Your task to perform on an android device: turn on sleep mode Image 0: 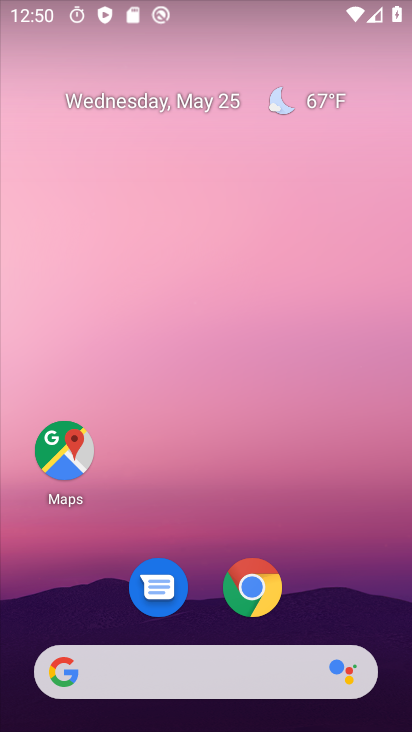
Step 0: drag from (208, 726) to (194, 164)
Your task to perform on an android device: turn on sleep mode Image 1: 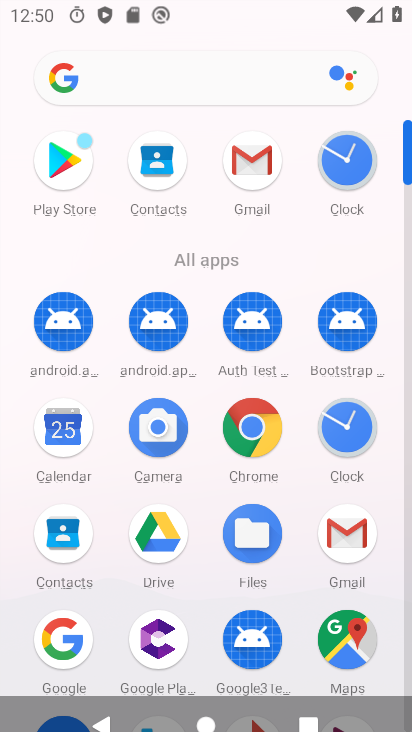
Step 1: drag from (201, 597) to (206, 184)
Your task to perform on an android device: turn on sleep mode Image 2: 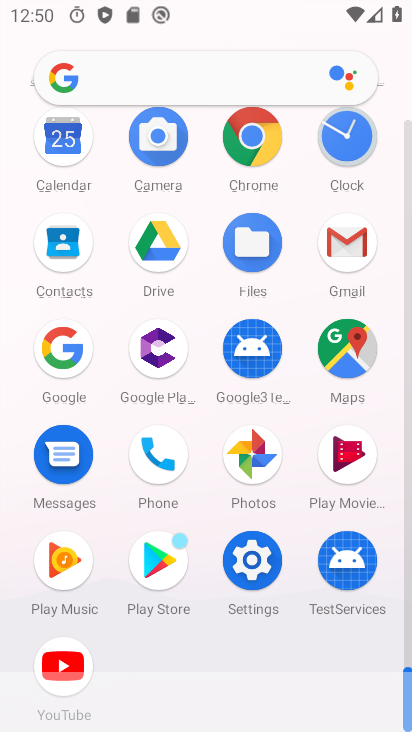
Step 2: click (259, 566)
Your task to perform on an android device: turn on sleep mode Image 3: 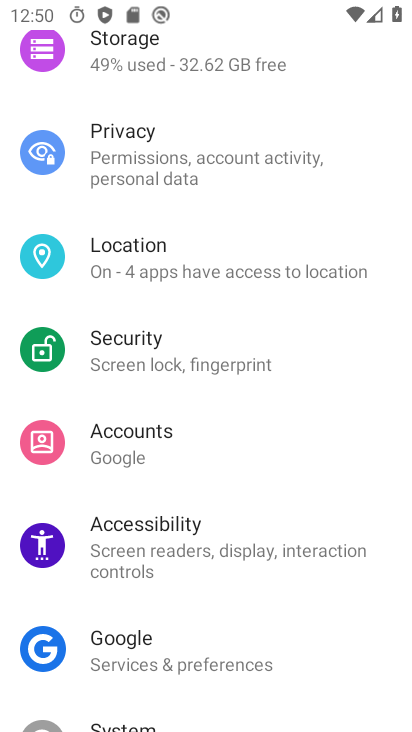
Step 3: drag from (248, 677) to (231, 307)
Your task to perform on an android device: turn on sleep mode Image 4: 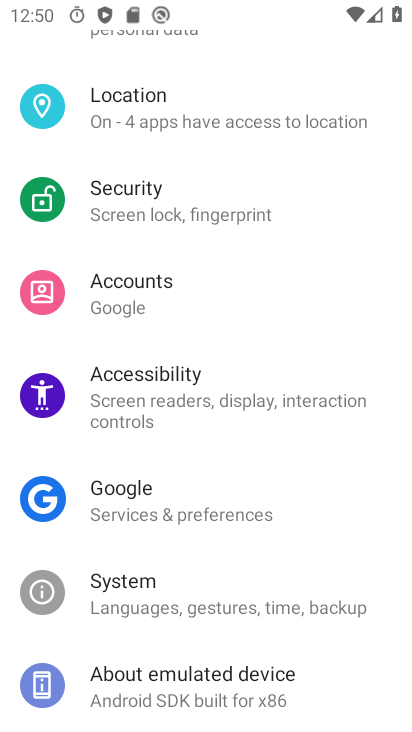
Step 4: drag from (190, 665) to (188, 317)
Your task to perform on an android device: turn on sleep mode Image 5: 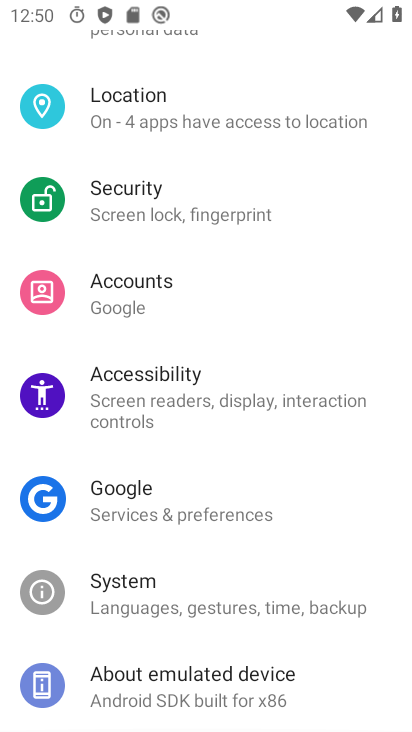
Step 5: drag from (238, 110) to (244, 258)
Your task to perform on an android device: turn on sleep mode Image 6: 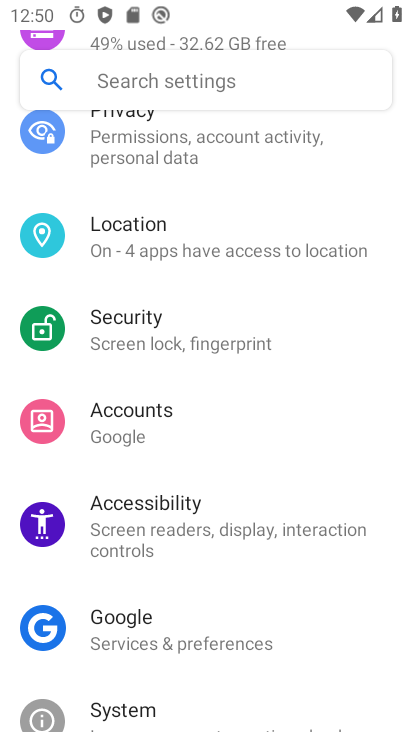
Step 6: click (251, 507)
Your task to perform on an android device: turn on sleep mode Image 7: 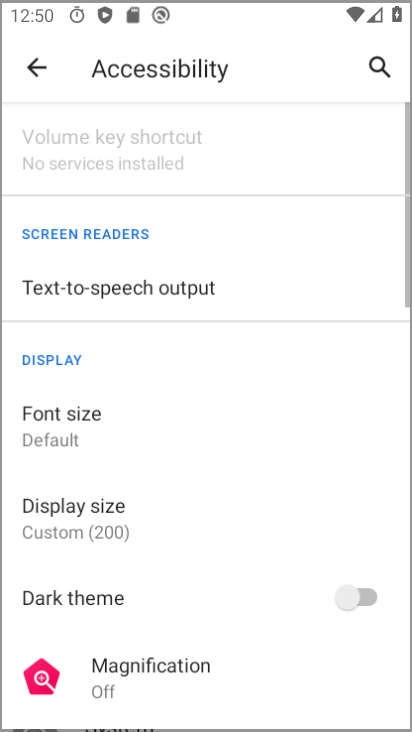
Step 7: drag from (237, 213) to (239, 529)
Your task to perform on an android device: turn on sleep mode Image 8: 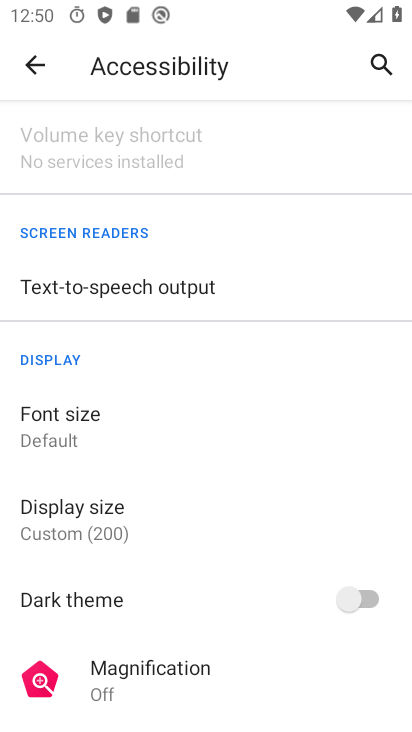
Step 8: click (36, 66)
Your task to perform on an android device: turn on sleep mode Image 9: 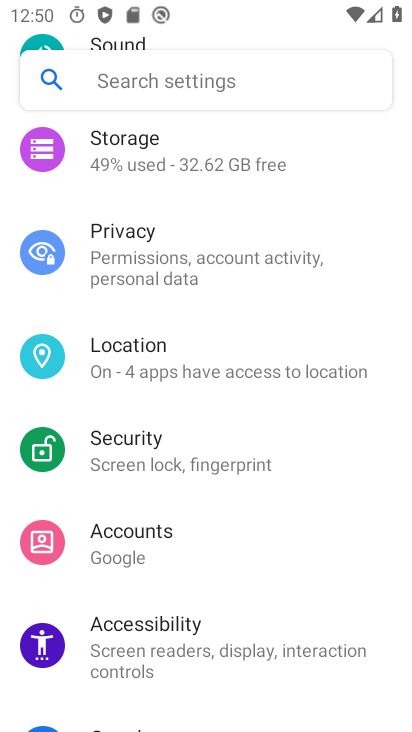
Step 9: drag from (224, 178) to (224, 503)
Your task to perform on an android device: turn on sleep mode Image 10: 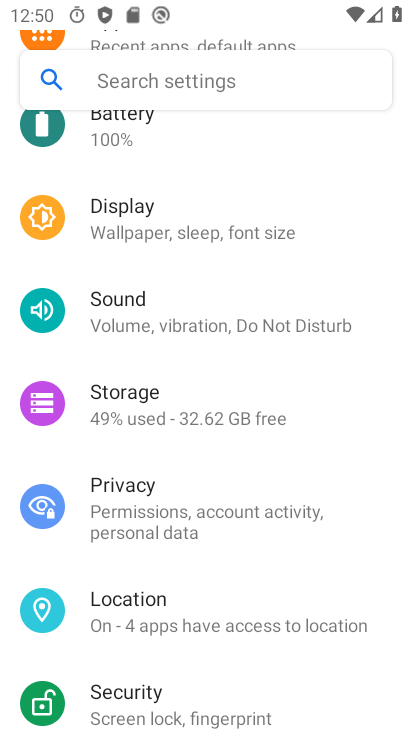
Step 10: drag from (267, 212) to (291, 549)
Your task to perform on an android device: turn on sleep mode Image 11: 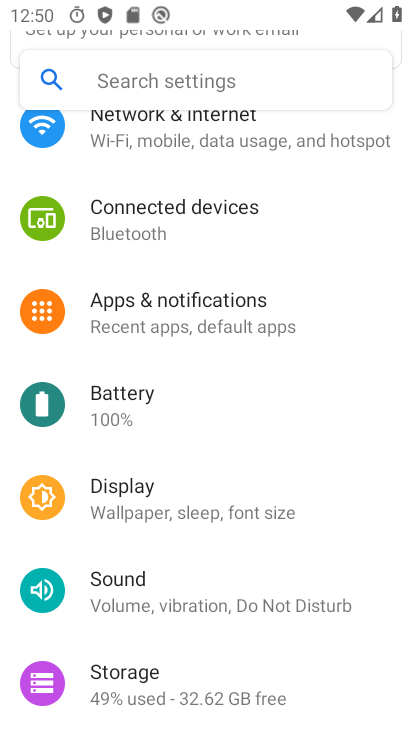
Step 11: click (242, 513)
Your task to perform on an android device: turn on sleep mode Image 12: 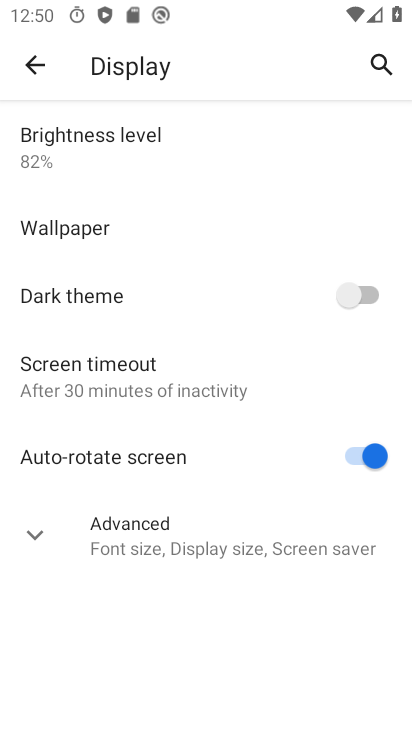
Step 12: click (30, 68)
Your task to perform on an android device: turn on sleep mode Image 13: 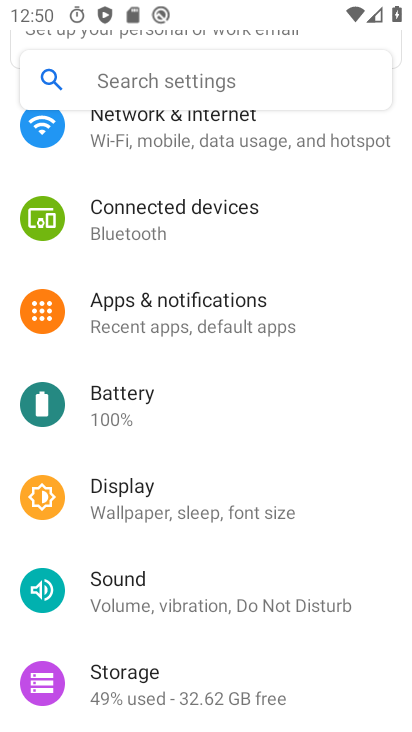
Step 13: task complete